Your task to perform on an android device: move a message to another label in the gmail app Image 0: 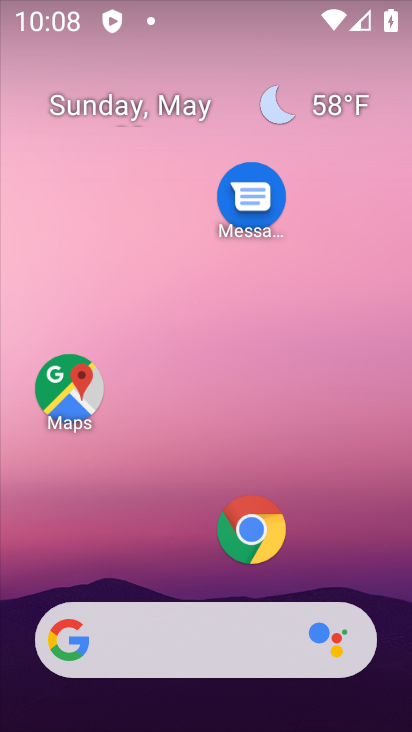
Step 0: drag from (162, 32) to (189, 0)
Your task to perform on an android device: move a message to another label in the gmail app Image 1: 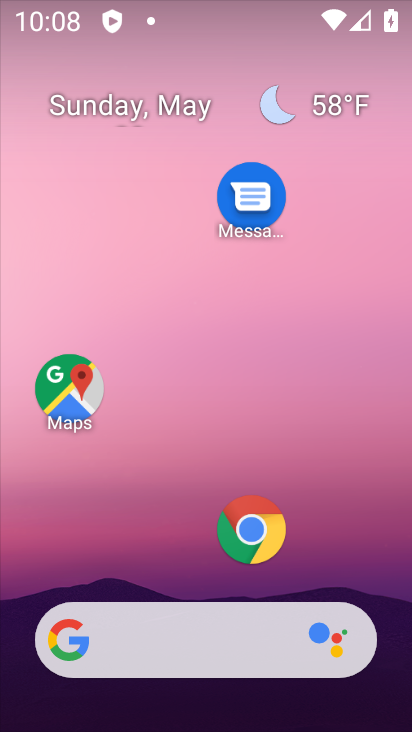
Step 1: drag from (116, 21) to (217, 0)
Your task to perform on an android device: move a message to another label in the gmail app Image 2: 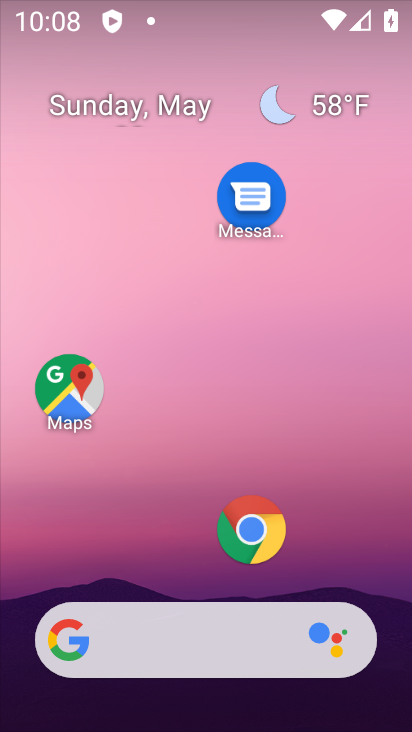
Step 2: drag from (159, 549) to (229, 0)
Your task to perform on an android device: move a message to another label in the gmail app Image 3: 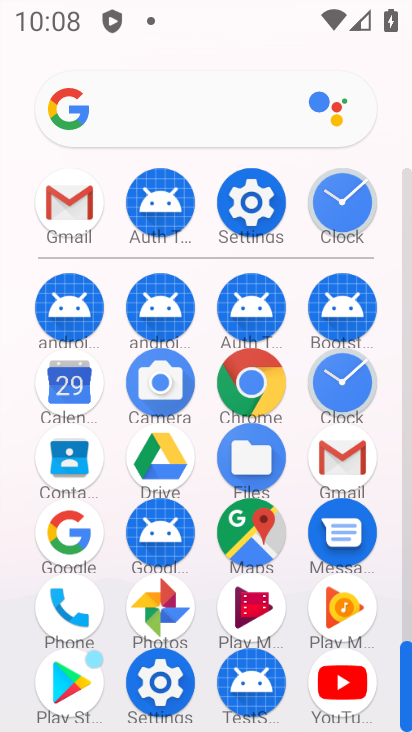
Step 3: click (335, 443)
Your task to perform on an android device: move a message to another label in the gmail app Image 4: 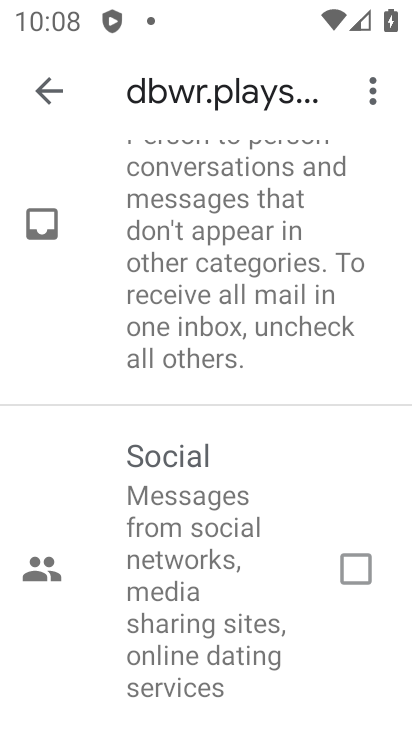
Step 4: click (51, 86)
Your task to perform on an android device: move a message to another label in the gmail app Image 5: 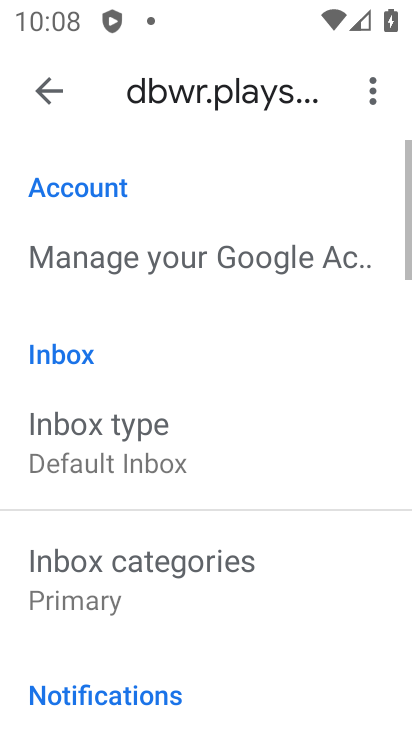
Step 5: click (51, 85)
Your task to perform on an android device: move a message to another label in the gmail app Image 6: 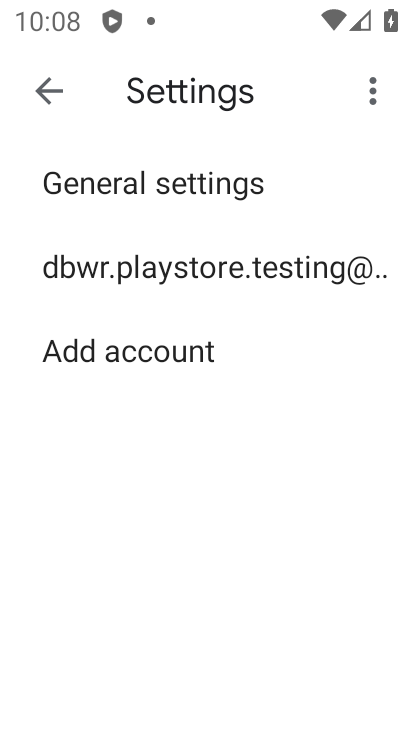
Step 6: click (50, 86)
Your task to perform on an android device: move a message to another label in the gmail app Image 7: 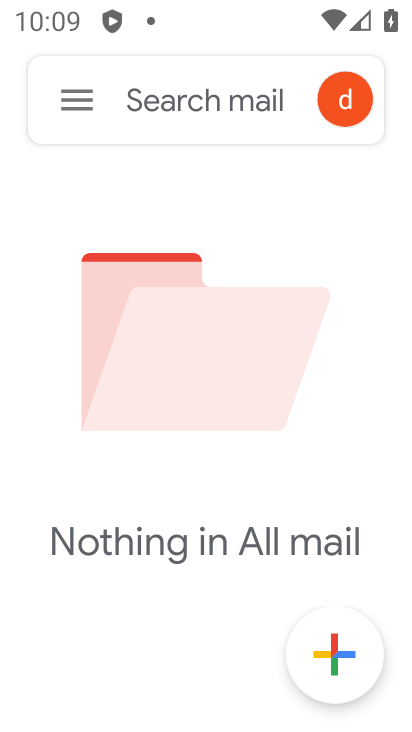
Step 7: click (50, 86)
Your task to perform on an android device: move a message to another label in the gmail app Image 8: 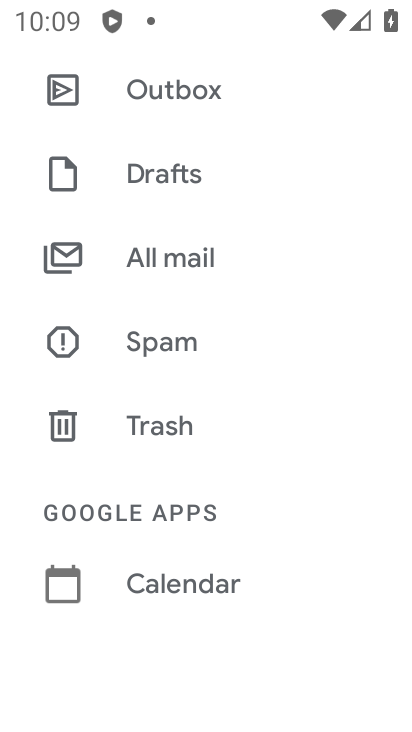
Step 8: click (167, 269)
Your task to perform on an android device: move a message to another label in the gmail app Image 9: 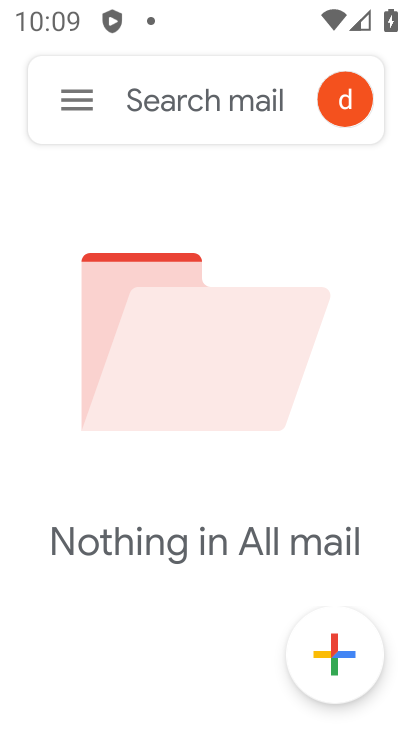
Step 9: task complete